Your task to perform on an android device: Show the shopping cart on bestbuy. Search for macbook air on bestbuy, select the first entry, and add it to the cart. Image 0: 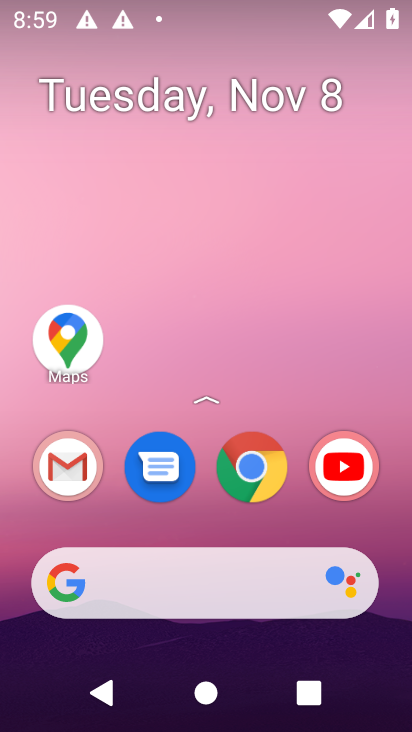
Step 0: click (254, 583)
Your task to perform on an android device: Show the shopping cart on bestbuy. Search for macbook air on bestbuy, select the first entry, and add it to the cart. Image 1: 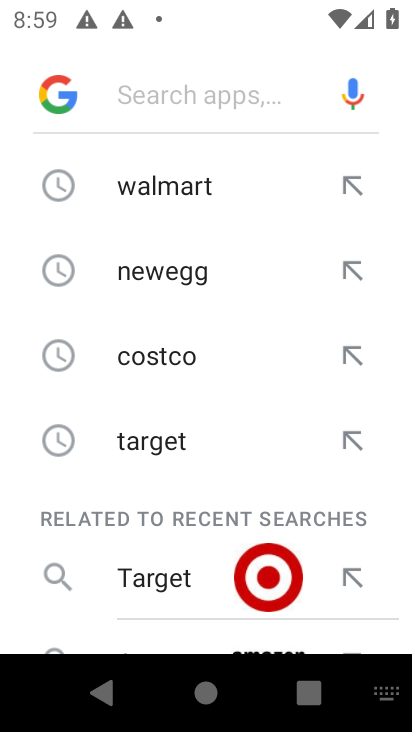
Step 1: type "bestbuy"
Your task to perform on an android device: Show the shopping cart on bestbuy. Search for macbook air on bestbuy, select the first entry, and add it to the cart. Image 2: 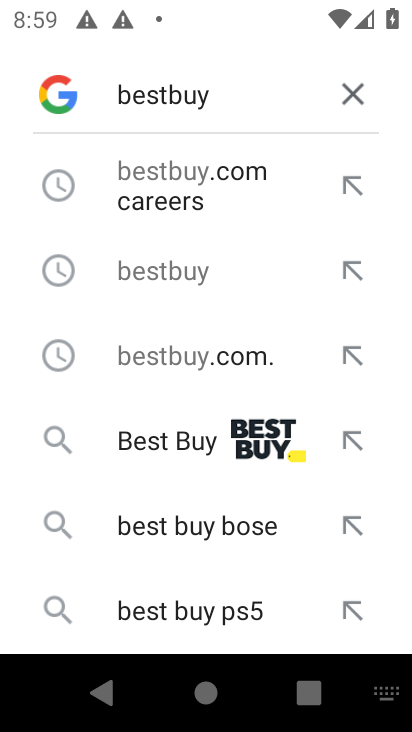
Step 2: type "'"
Your task to perform on an android device: Show the shopping cart on bestbuy. Search for macbook air on bestbuy, select the first entry, and add it to the cart. Image 3: 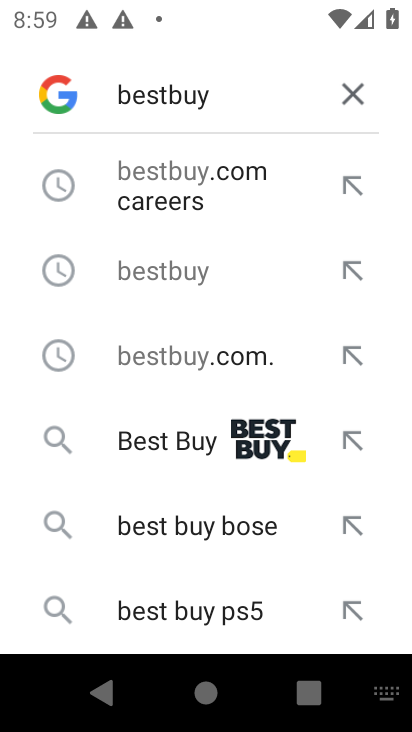
Step 3: click (207, 422)
Your task to perform on an android device: Show the shopping cart on bestbuy. Search for macbook air on bestbuy, select the first entry, and add it to the cart. Image 4: 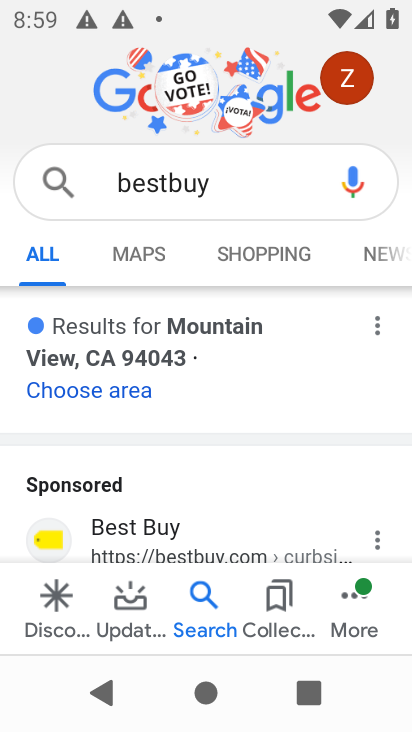
Step 4: click (117, 520)
Your task to perform on an android device: Show the shopping cart on bestbuy. Search for macbook air on bestbuy, select the first entry, and add it to the cart. Image 5: 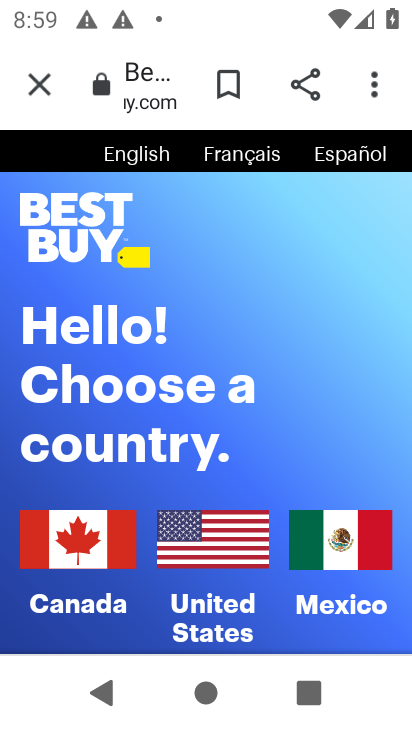
Step 5: click (157, 542)
Your task to perform on an android device: Show the shopping cart on bestbuy. Search for macbook air on bestbuy, select the first entry, and add it to the cart. Image 6: 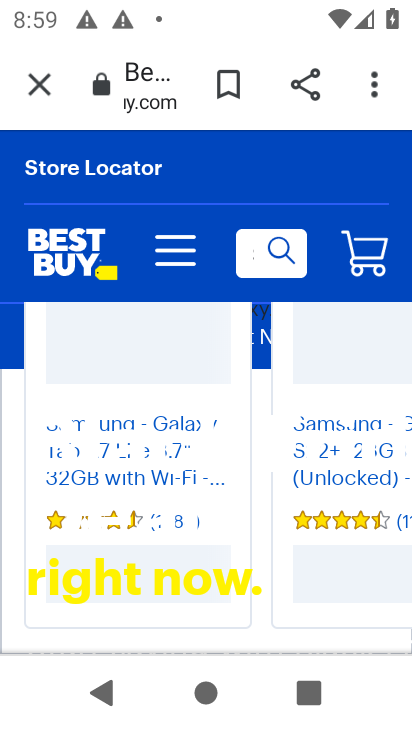
Step 6: task complete